Your task to perform on an android device: What's the weather going to be tomorrow? Image 0: 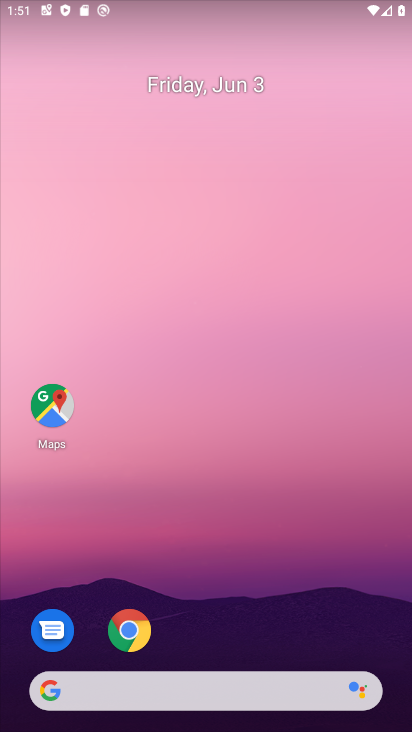
Step 0: drag from (207, 707) to (147, 84)
Your task to perform on an android device: What's the weather going to be tomorrow? Image 1: 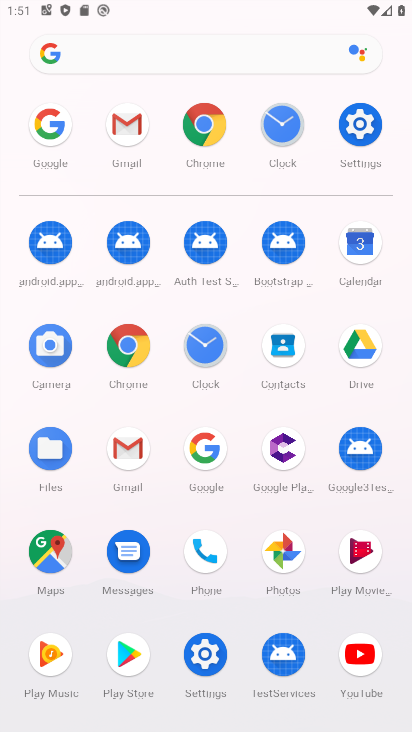
Step 1: click (209, 446)
Your task to perform on an android device: What's the weather going to be tomorrow? Image 2: 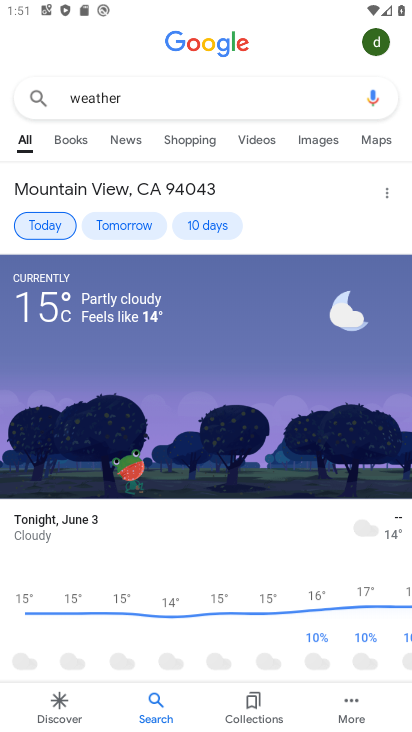
Step 2: click (128, 219)
Your task to perform on an android device: What's the weather going to be tomorrow? Image 3: 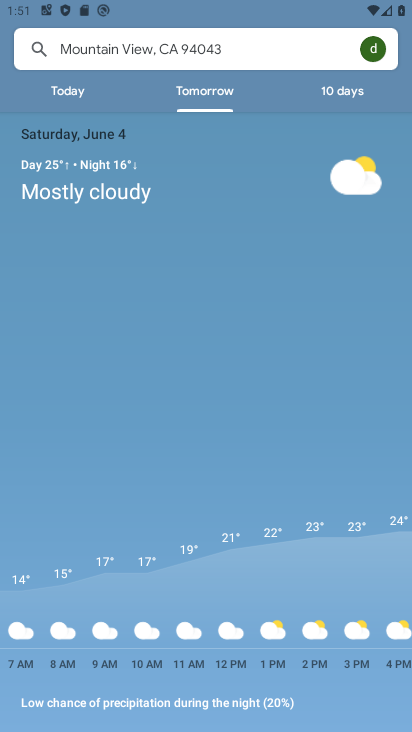
Step 3: task complete